Your task to perform on an android device: find snoozed emails in the gmail app Image 0: 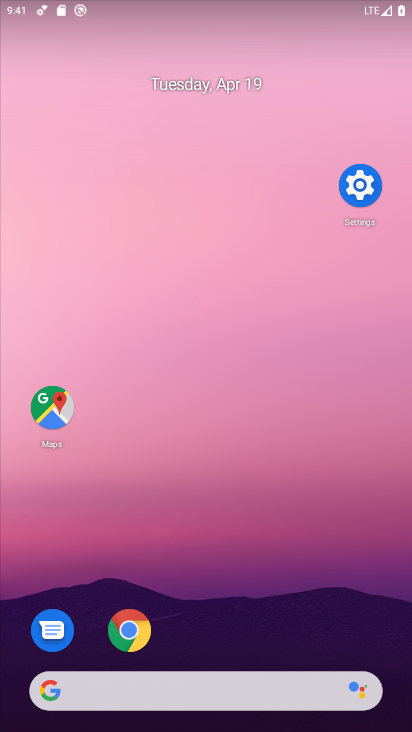
Step 0: drag from (234, 662) to (285, 121)
Your task to perform on an android device: find snoozed emails in the gmail app Image 1: 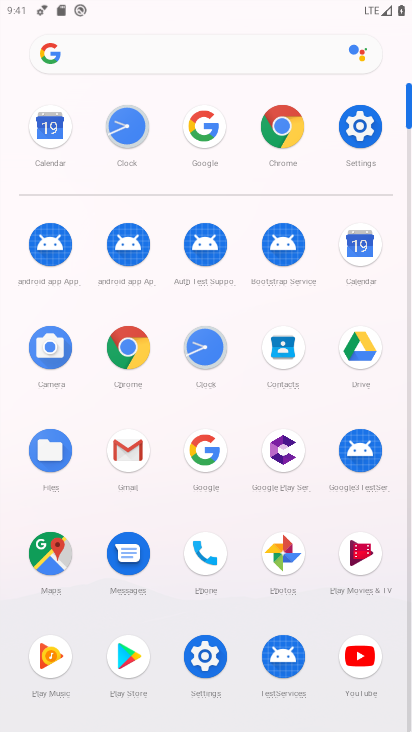
Step 1: click (142, 449)
Your task to perform on an android device: find snoozed emails in the gmail app Image 2: 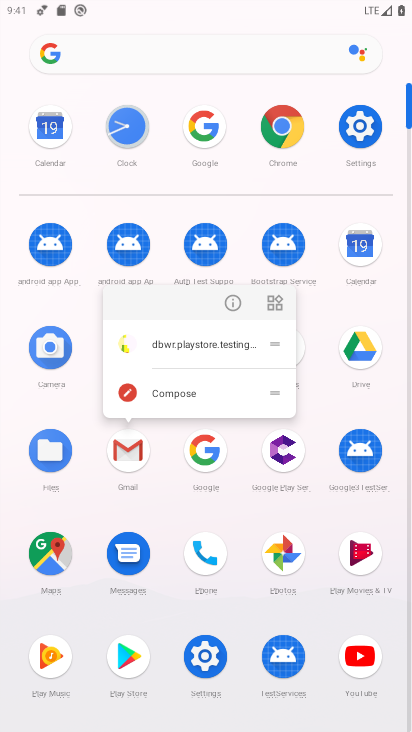
Step 2: click (132, 464)
Your task to perform on an android device: find snoozed emails in the gmail app Image 3: 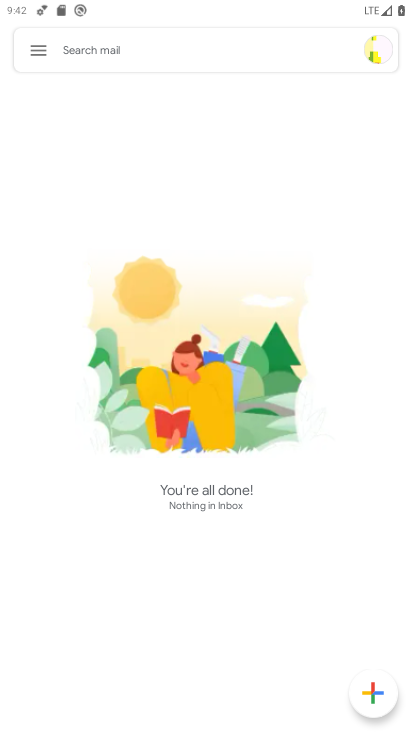
Step 3: click (45, 58)
Your task to perform on an android device: find snoozed emails in the gmail app Image 4: 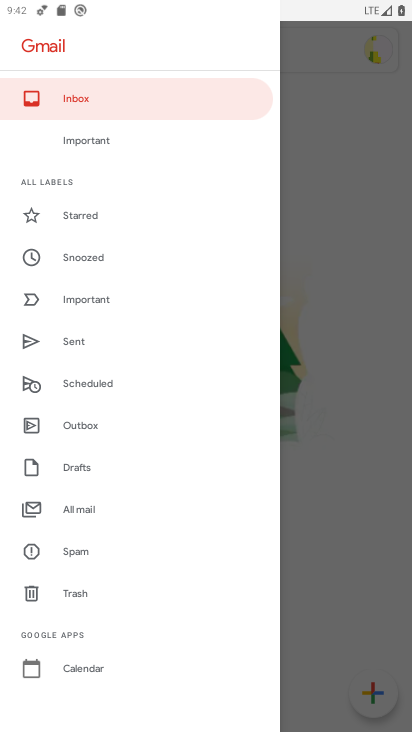
Step 4: click (122, 258)
Your task to perform on an android device: find snoozed emails in the gmail app Image 5: 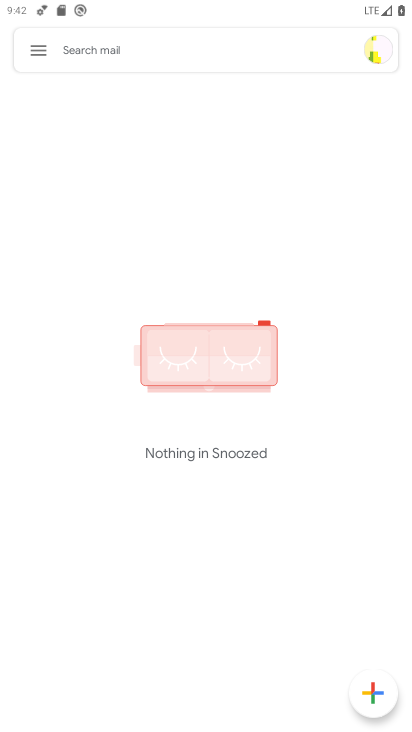
Step 5: task complete